Your task to perform on an android device: add a contact in the contacts app Image 0: 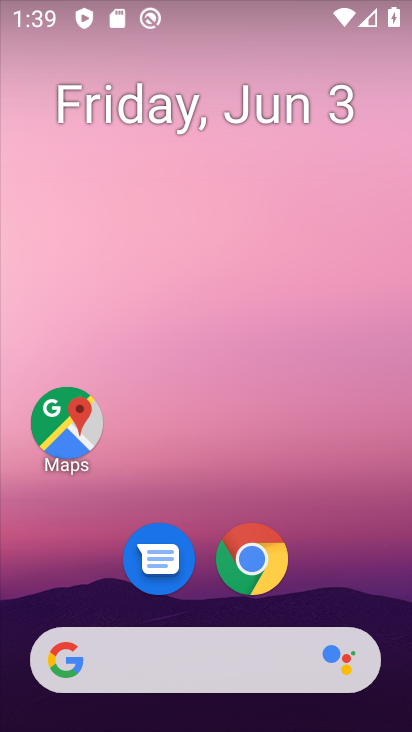
Step 0: drag from (329, 589) to (301, 167)
Your task to perform on an android device: add a contact in the contacts app Image 1: 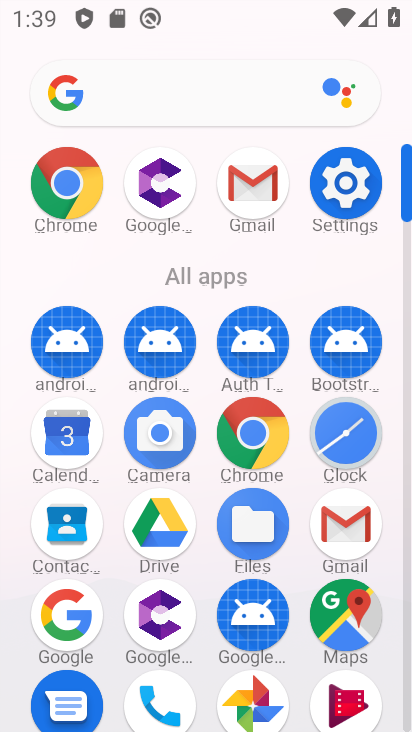
Step 1: click (79, 537)
Your task to perform on an android device: add a contact in the contacts app Image 2: 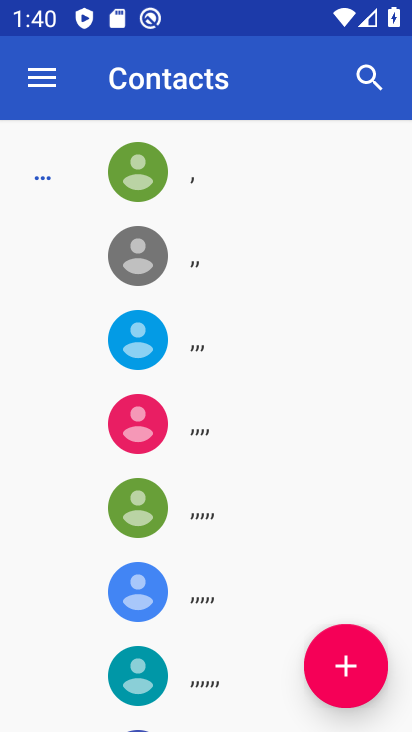
Step 2: click (333, 677)
Your task to perform on an android device: add a contact in the contacts app Image 3: 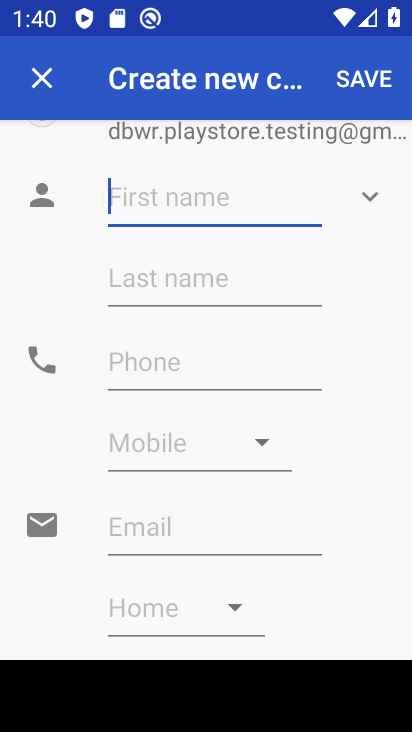
Step 3: type "dgfg"
Your task to perform on an android device: add a contact in the contacts app Image 4: 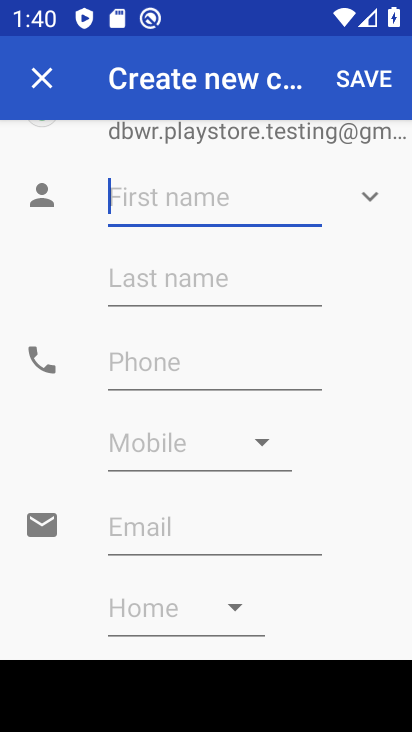
Step 4: click (142, 373)
Your task to perform on an android device: add a contact in the contacts app Image 5: 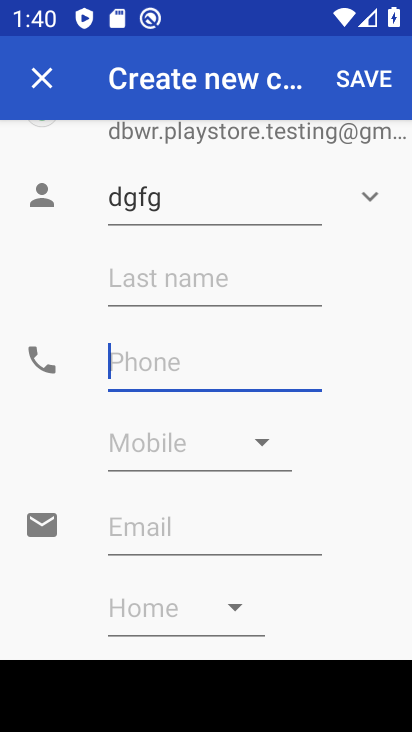
Step 5: type "5445454545"
Your task to perform on an android device: add a contact in the contacts app Image 6: 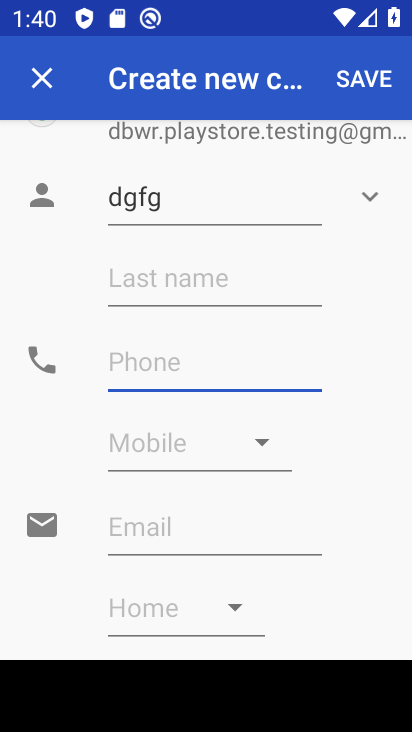
Step 6: click (353, 73)
Your task to perform on an android device: add a contact in the contacts app Image 7: 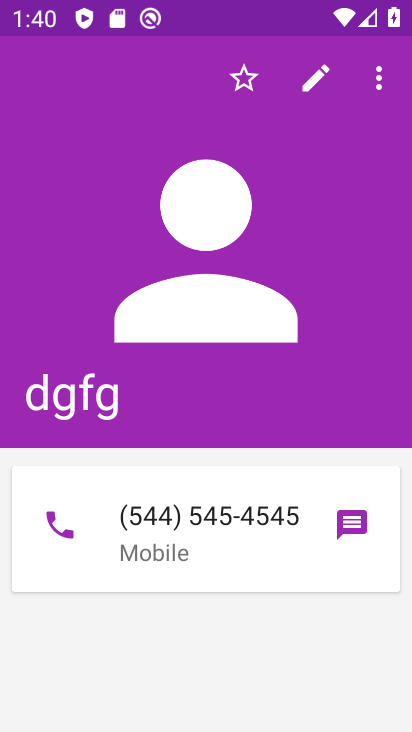
Step 7: task complete